Your task to perform on an android device: Open Youtube and go to "Your channel" Image 0: 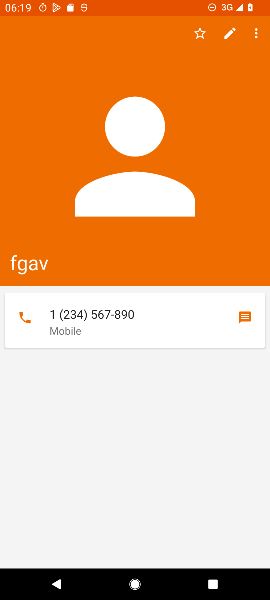
Step 0: press home button
Your task to perform on an android device: Open Youtube and go to "Your channel" Image 1: 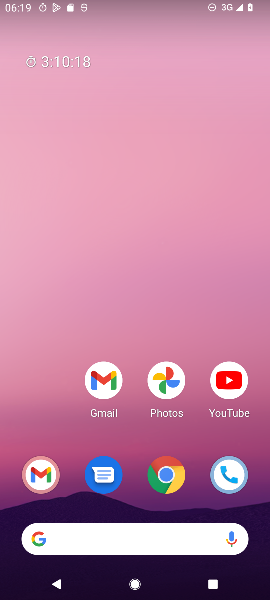
Step 1: drag from (45, 421) to (54, 224)
Your task to perform on an android device: Open Youtube and go to "Your channel" Image 2: 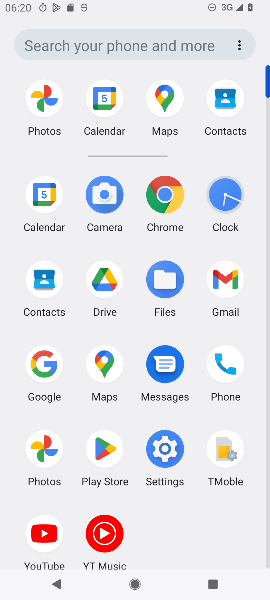
Step 2: click (47, 540)
Your task to perform on an android device: Open Youtube and go to "Your channel" Image 3: 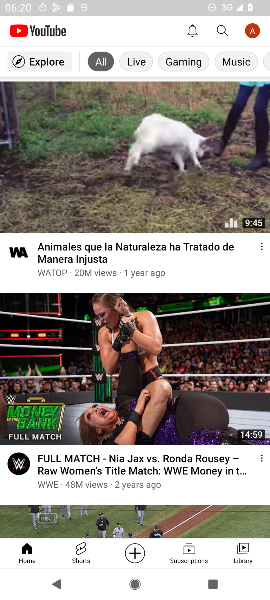
Step 3: click (252, 33)
Your task to perform on an android device: Open Youtube and go to "Your channel" Image 4: 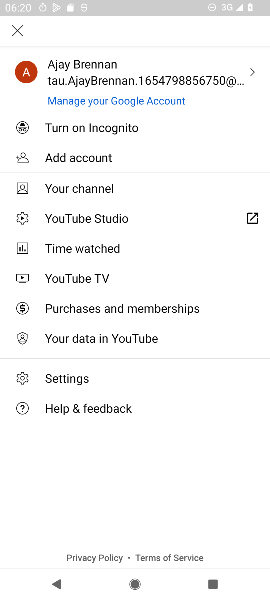
Step 4: click (162, 189)
Your task to perform on an android device: Open Youtube and go to "Your channel" Image 5: 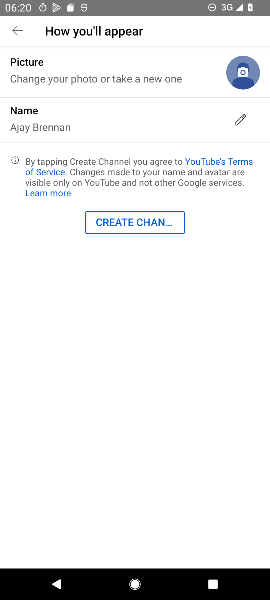
Step 5: task complete